Your task to perform on an android device: check the backup settings in the google photos Image 0: 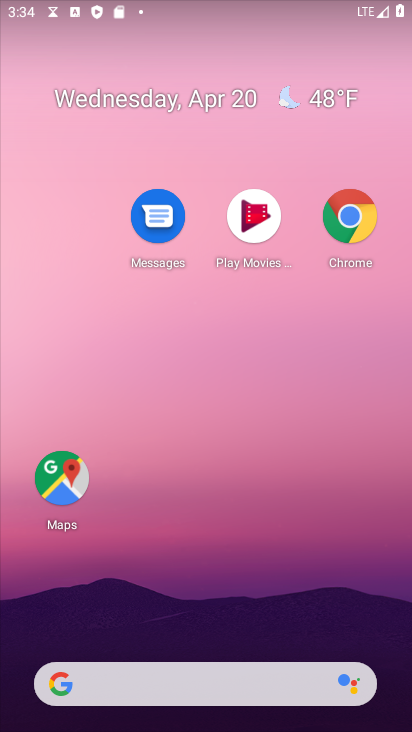
Step 0: drag from (292, 541) to (281, 65)
Your task to perform on an android device: check the backup settings in the google photos Image 1: 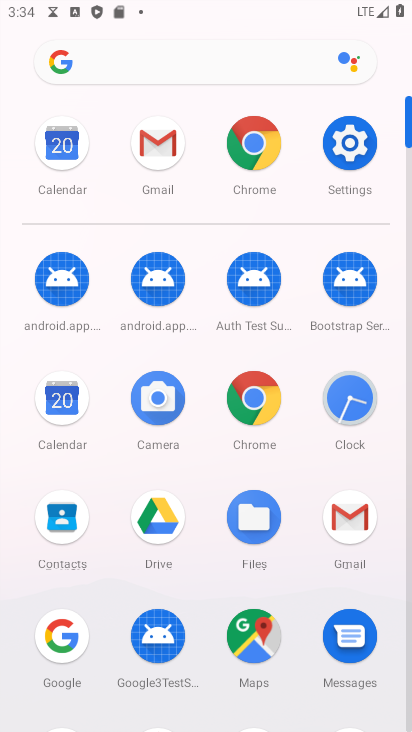
Step 1: drag from (202, 477) to (176, 187)
Your task to perform on an android device: check the backup settings in the google photos Image 2: 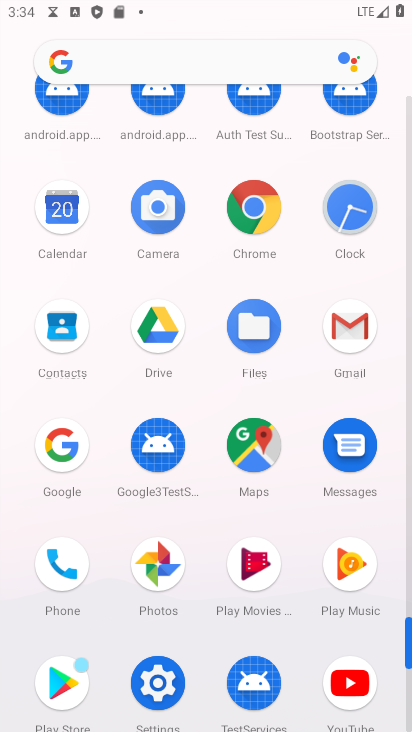
Step 2: click (176, 575)
Your task to perform on an android device: check the backup settings in the google photos Image 3: 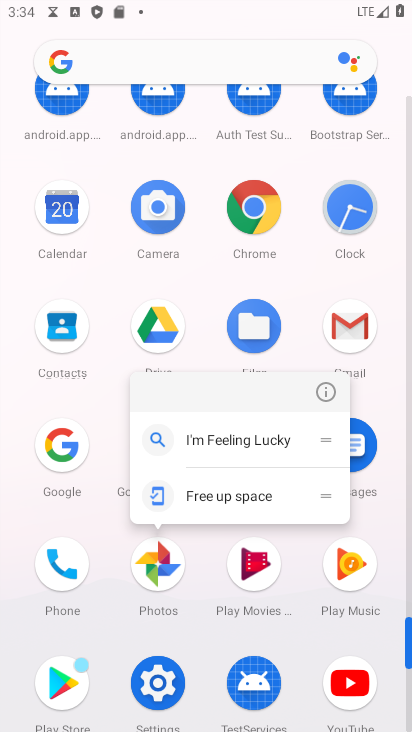
Step 3: click (322, 391)
Your task to perform on an android device: check the backup settings in the google photos Image 4: 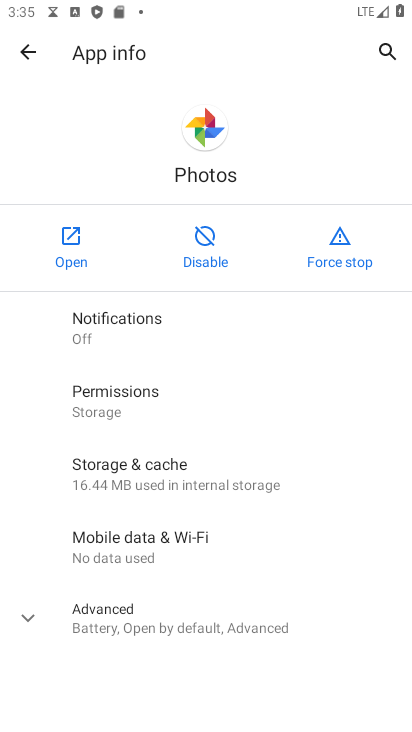
Step 4: click (73, 259)
Your task to perform on an android device: check the backup settings in the google photos Image 5: 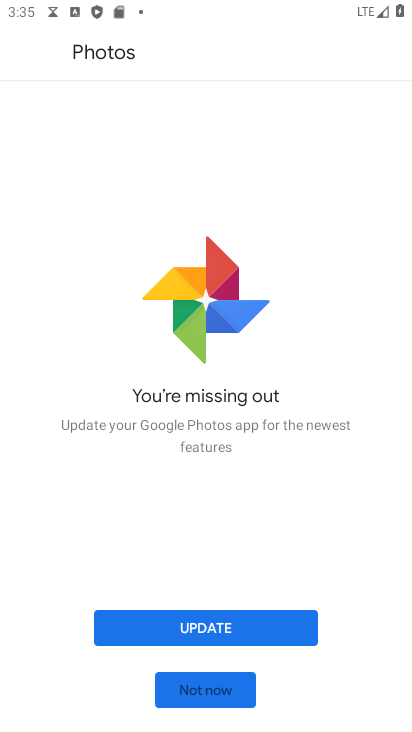
Step 5: click (243, 635)
Your task to perform on an android device: check the backup settings in the google photos Image 6: 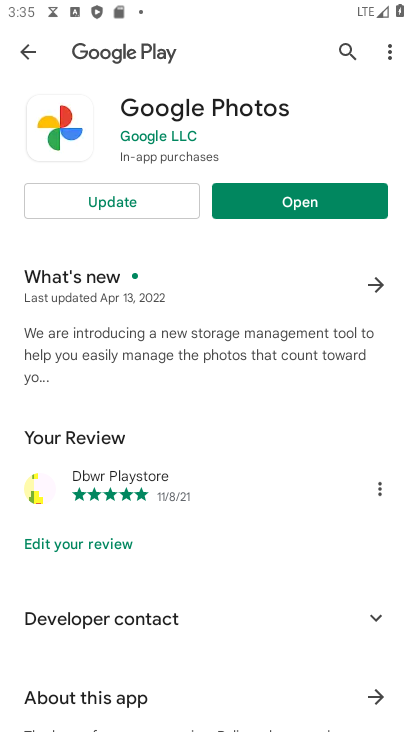
Step 6: click (152, 195)
Your task to perform on an android device: check the backup settings in the google photos Image 7: 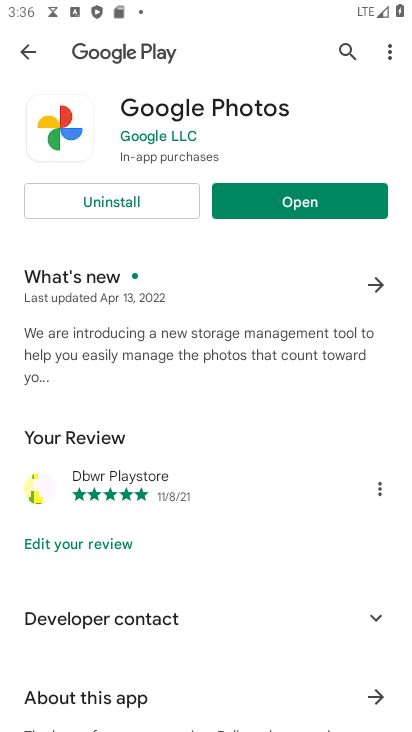
Step 7: click (327, 209)
Your task to perform on an android device: check the backup settings in the google photos Image 8: 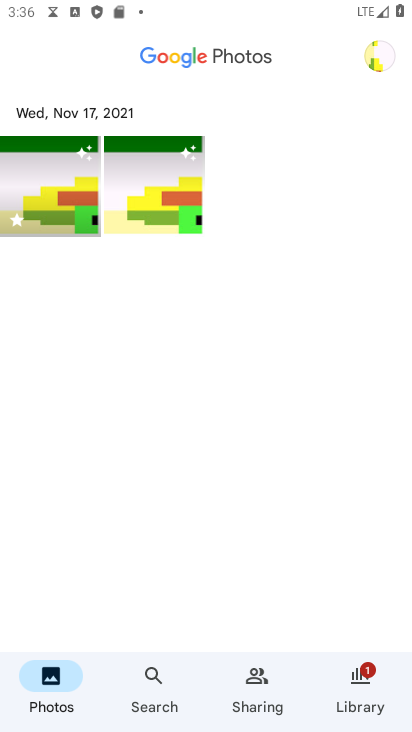
Step 8: drag from (264, 416) to (283, 609)
Your task to perform on an android device: check the backup settings in the google photos Image 9: 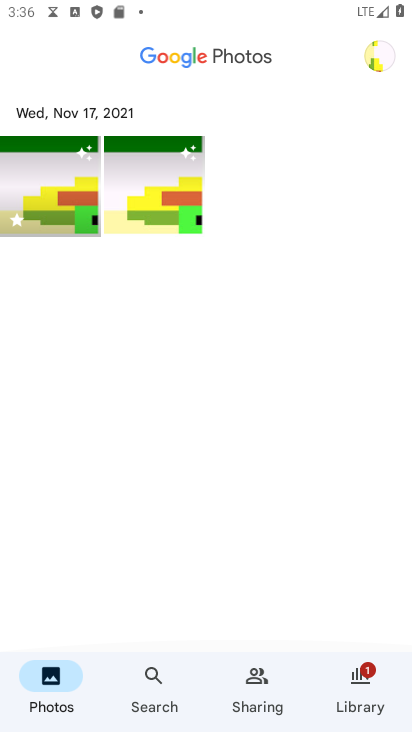
Step 9: click (378, 53)
Your task to perform on an android device: check the backup settings in the google photos Image 10: 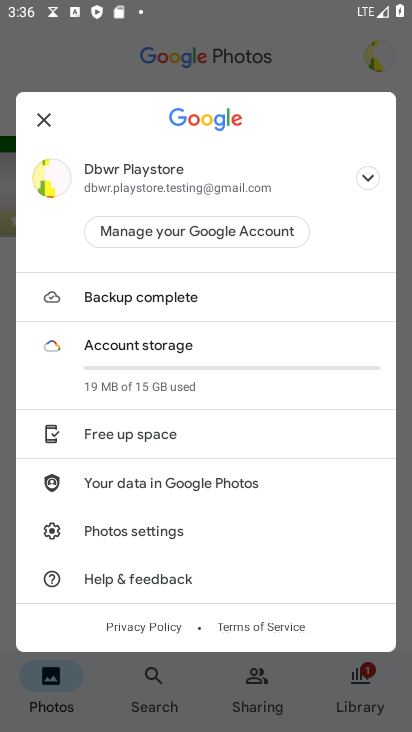
Step 10: click (184, 299)
Your task to perform on an android device: check the backup settings in the google photos Image 11: 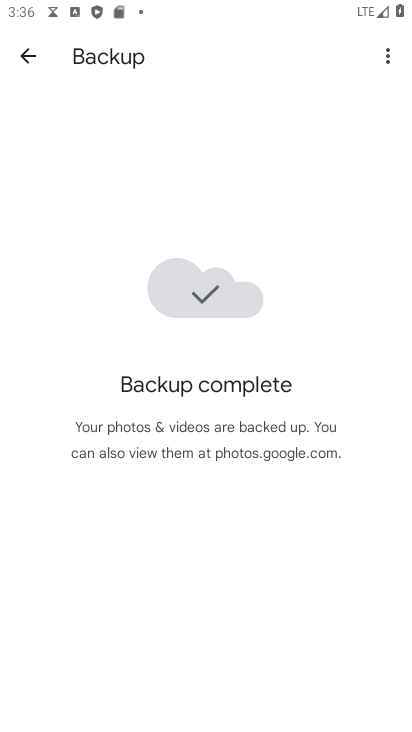
Step 11: click (387, 58)
Your task to perform on an android device: check the backup settings in the google photos Image 12: 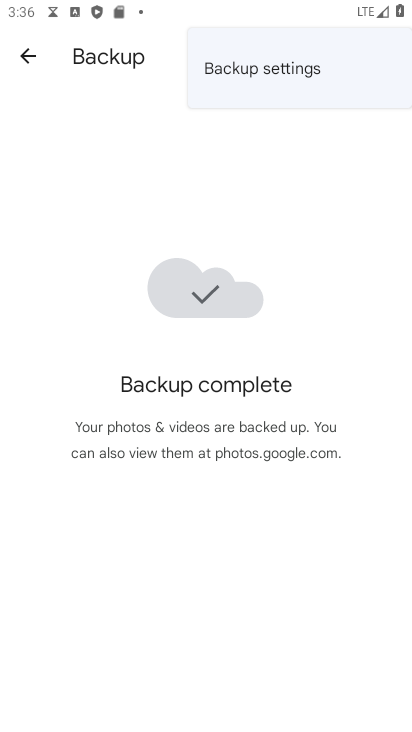
Step 12: click (287, 61)
Your task to perform on an android device: check the backup settings in the google photos Image 13: 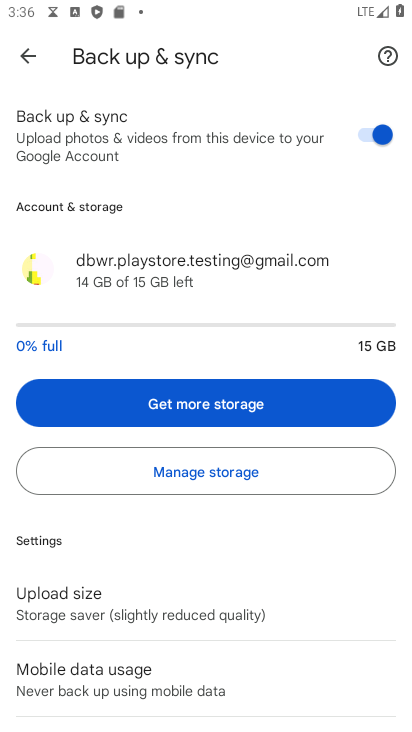
Step 13: task complete